Your task to perform on an android device: find photos in the google photos app Image 0: 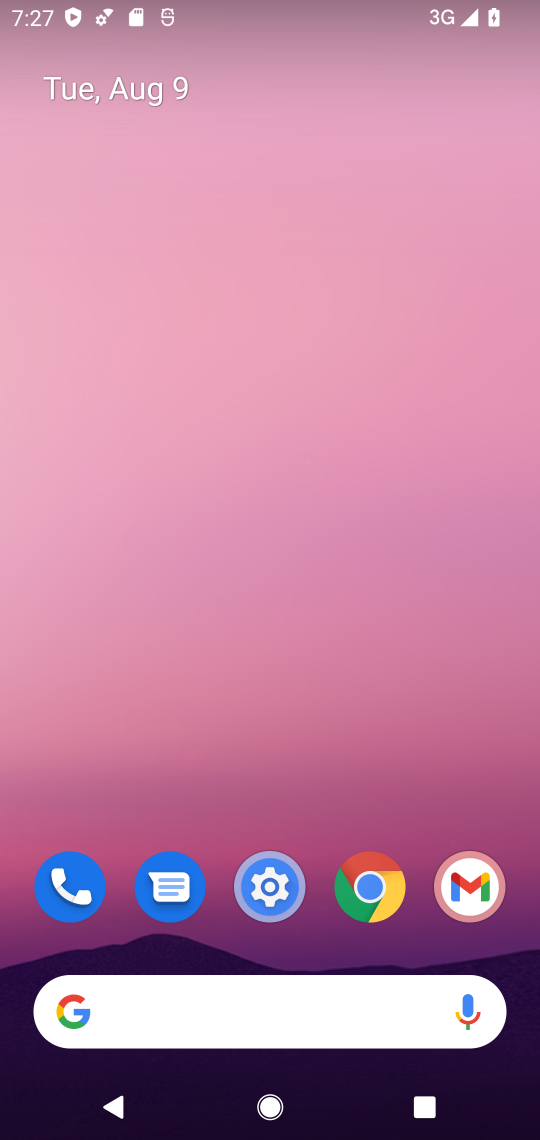
Step 0: drag from (323, 779) to (332, 0)
Your task to perform on an android device: find photos in the google photos app Image 1: 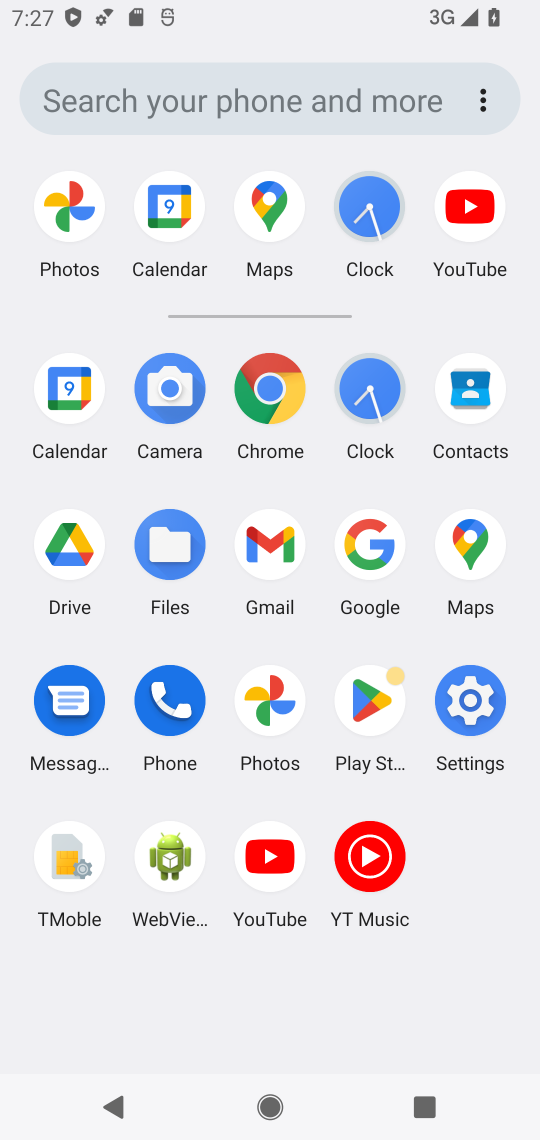
Step 1: click (270, 701)
Your task to perform on an android device: find photos in the google photos app Image 2: 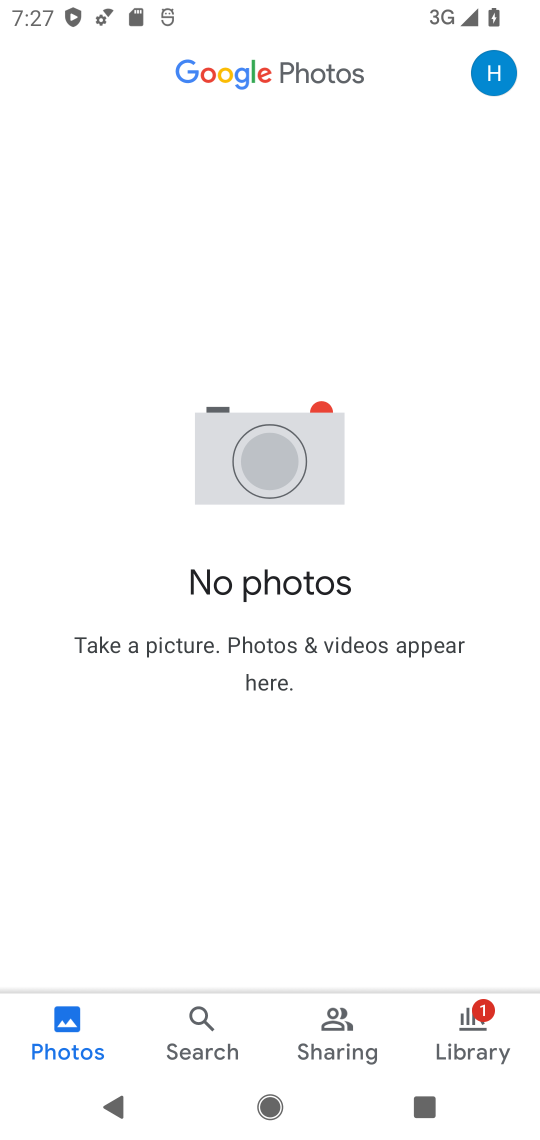
Step 2: task complete